Your task to perform on an android device: turn off translation in the chrome app Image 0: 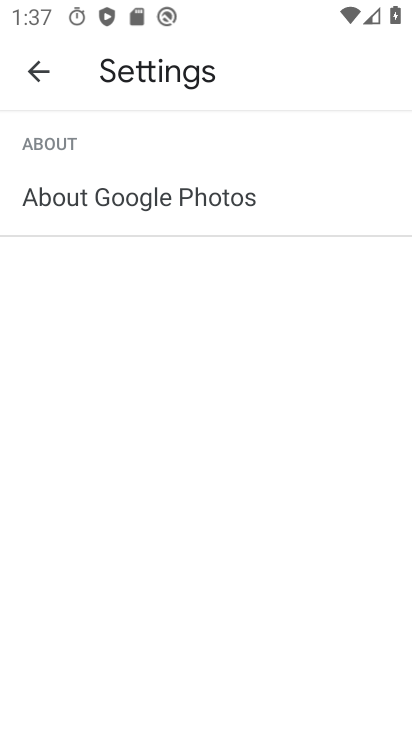
Step 0: task impossible